Your task to perform on an android device: open wifi settings Image 0: 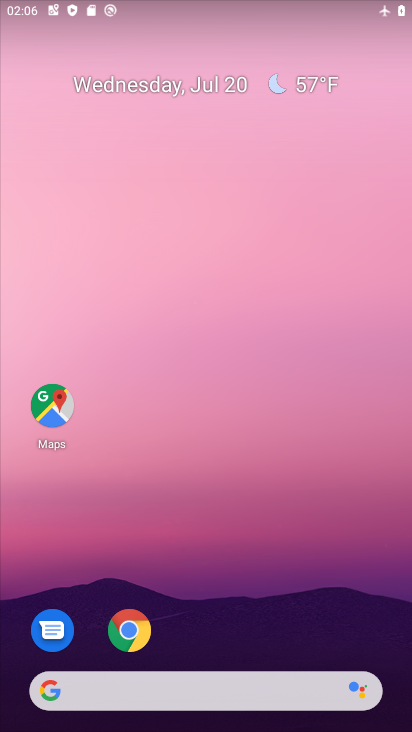
Step 0: drag from (328, 519) to (317, 128)
Your task to perform on an android device: open wifi settings Image 1: 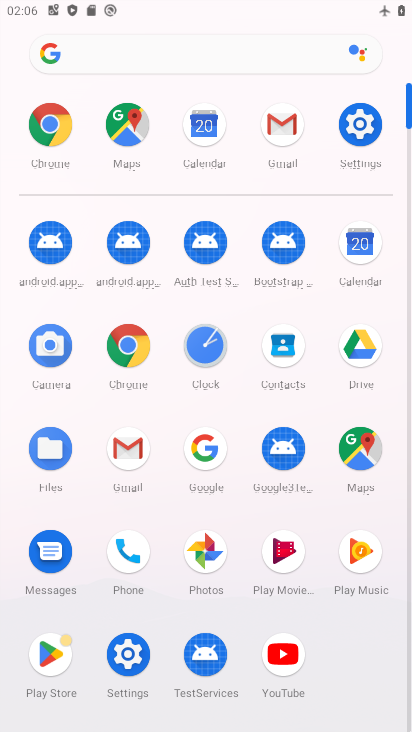
Step 1: click (363, 126)
Your task to perform on an android device: open wifi settings Image 2: 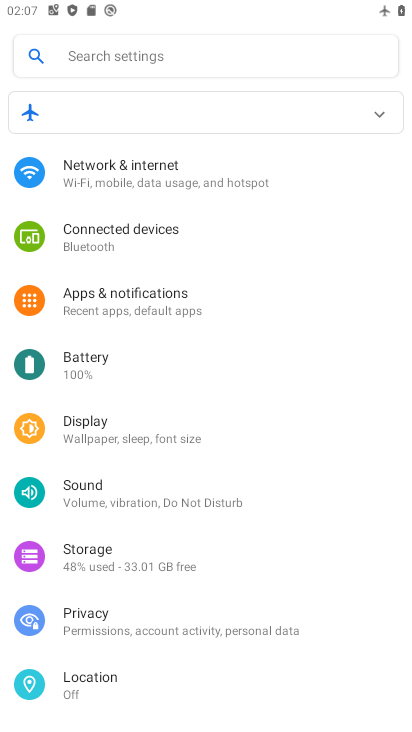
Step 2: click (153, 165)
Your task to perform on an android device: open wifi settings Image 3: 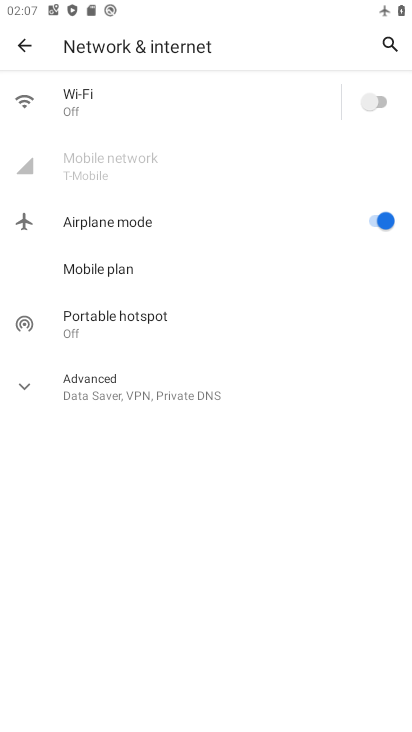
Step 3: click (292, 109)
Your task to perform on an android device: open wifi settings Image 4: 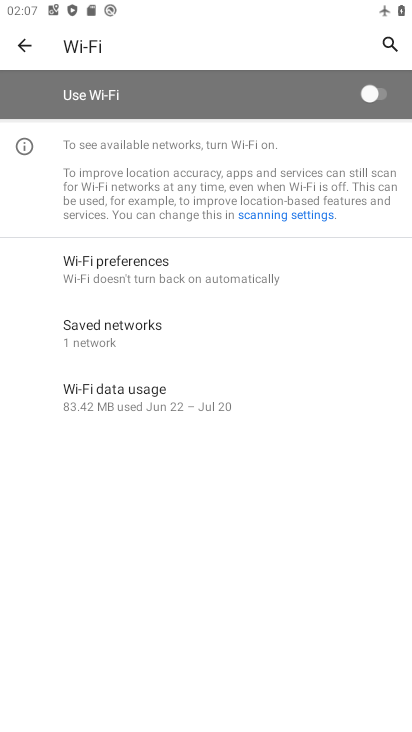
Step 4: click (375, 91)
Your task to perform on an android device: open wifi settings Image 5: 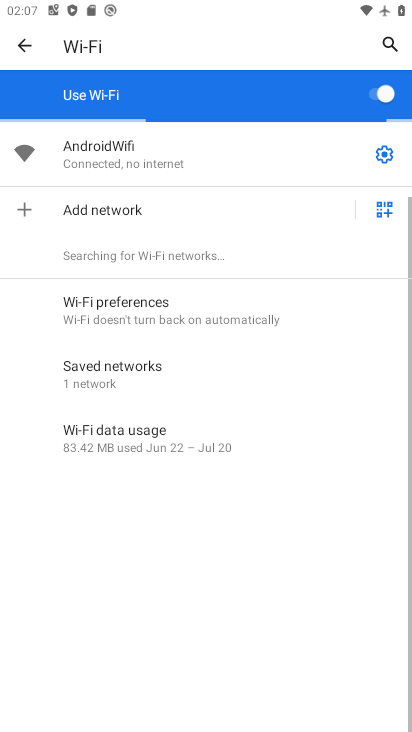
Step 5: click (380, 145)
Your task to perform on an android device: open wifi settings Image 6: 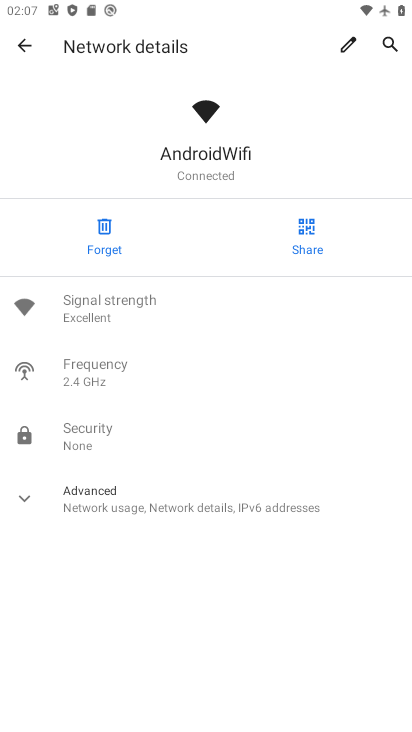
Step 6: task complete